Your task to perform on an android device: Open calendar and show me the fourth week of next month Image 0: 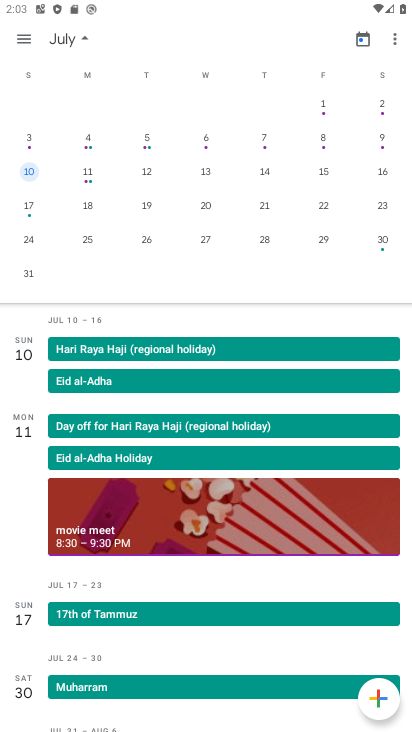
Step 0: click (31, 206)
Your task to perform on an android device: Open calendar and show me the fourth week of next month Image 1: 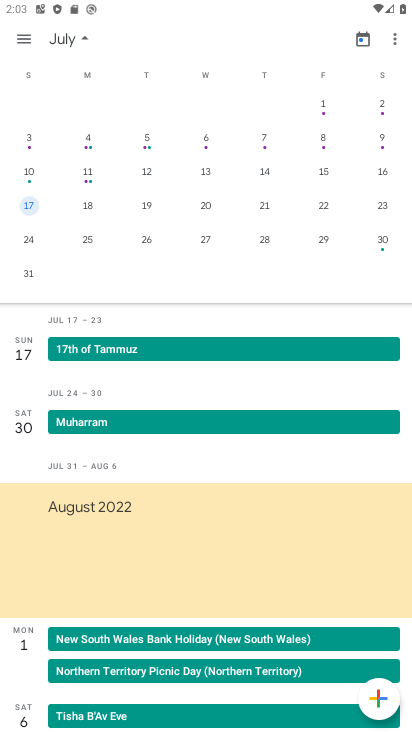
Step 1: click (90, 209)
Your task to perform on an android device: Open calendar and show me the fourth week of next month Image 2: 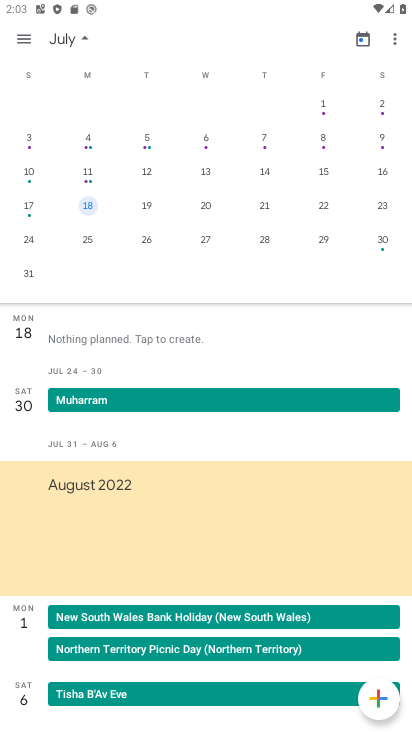
Step 2: click (141, 208)
Your task to perform on an android device: Open calendar and show me the fourth week of next month Image 3: 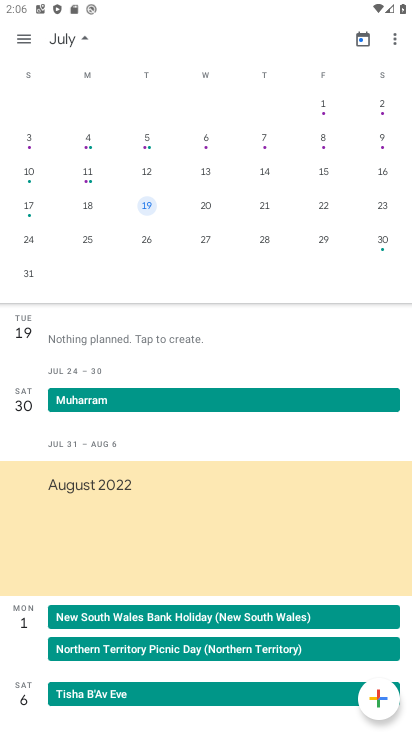
Step 3: click (28, 176)
Your task to perform on an android device: Open calendar and show me the fourth week of next month Image 4: 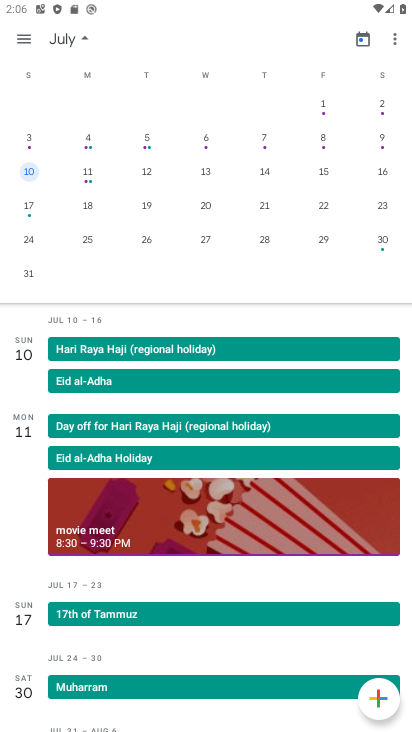
Step 4: click (33, 203)
Your task to perform on an android device: Open calendar and show me the fourth week of next month Image 5: 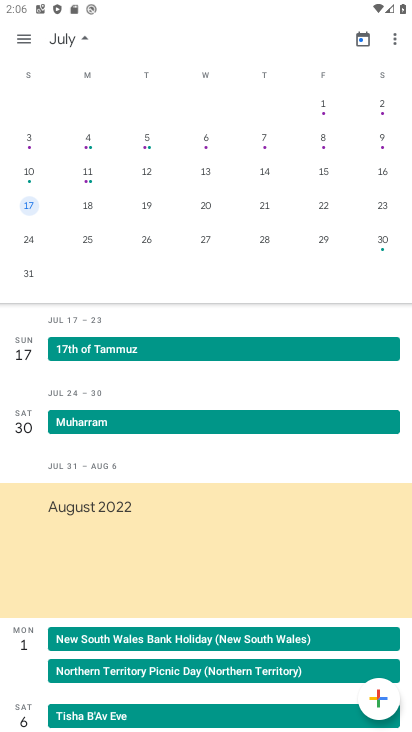
Step 5: task complete